Your task to perform on an android device: open a bookmark in the chrome app Image 0: 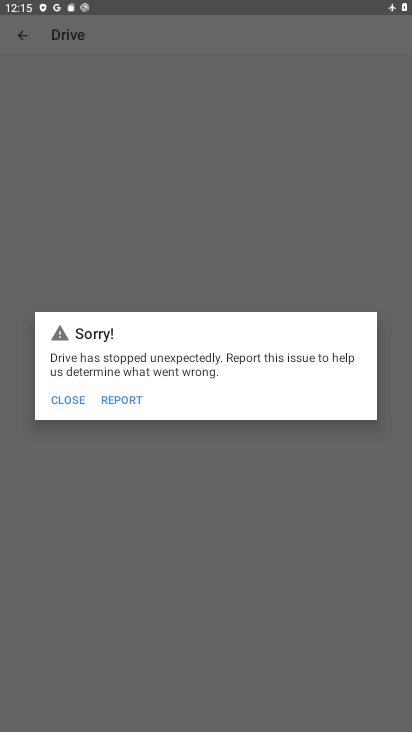
Step 0: press home button
Your task to perform on an android device: open a bookmark in the chrome app Image 1: 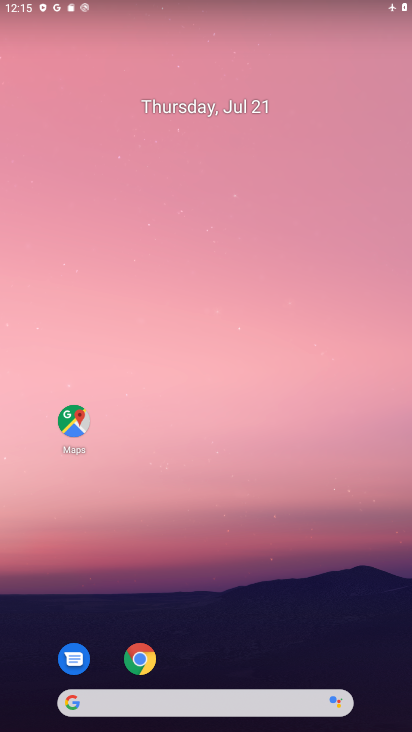
Step 1: click (142, 657)
Your task to perform on an android device: open a bookmark in the chrome app Image 2: 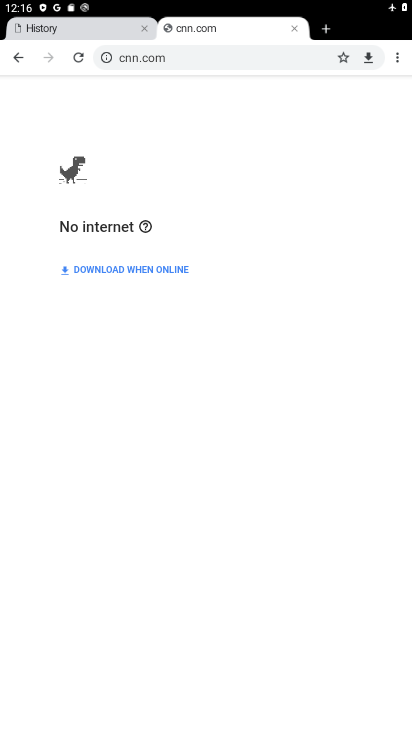
Step 2: click (404, 61)
Your task to perform on an android device: open a bookmark in the chrome app Image 3: 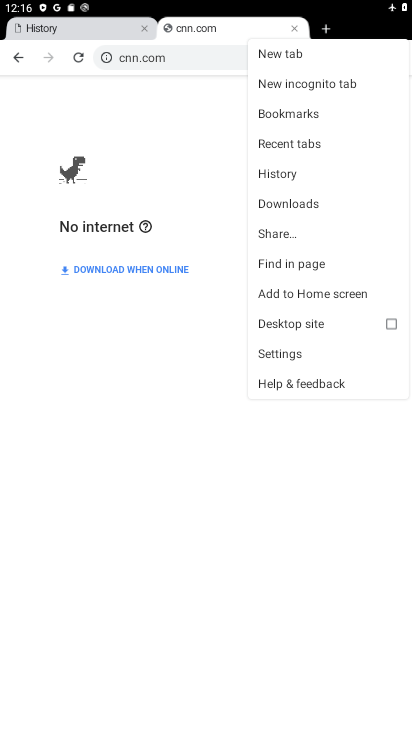
Step 3: click (322, 106)
Your task to perform on an android device: open a bookmark in the chrome app Image 4: 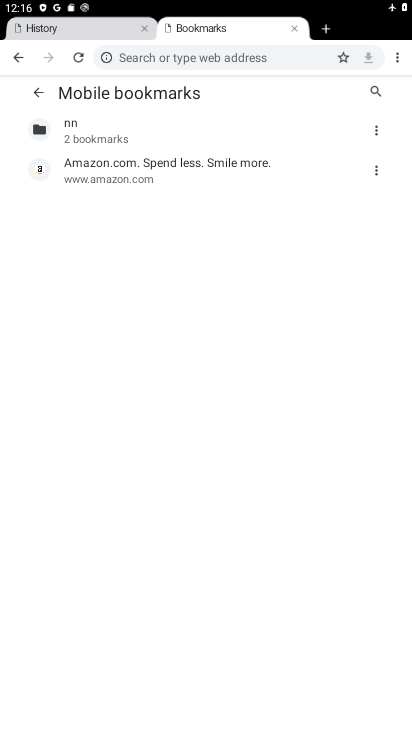
Step 4: click (248, 184)
Your task to perform on an android device: open a bookmark in the chrome app Image 5: 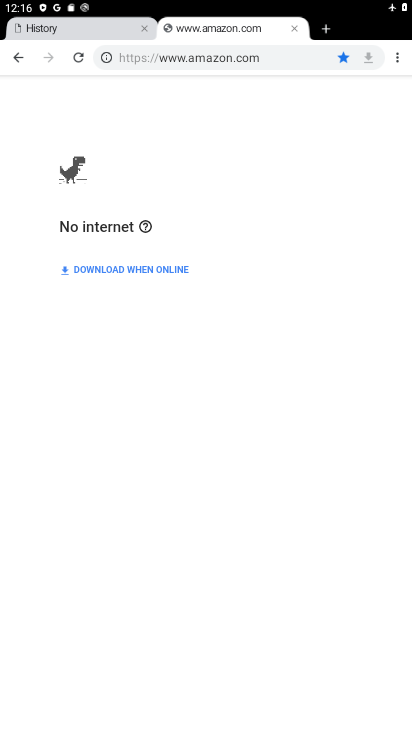
Step 5: task complete